Your task to perform on an android device: Open network settings Image 0: 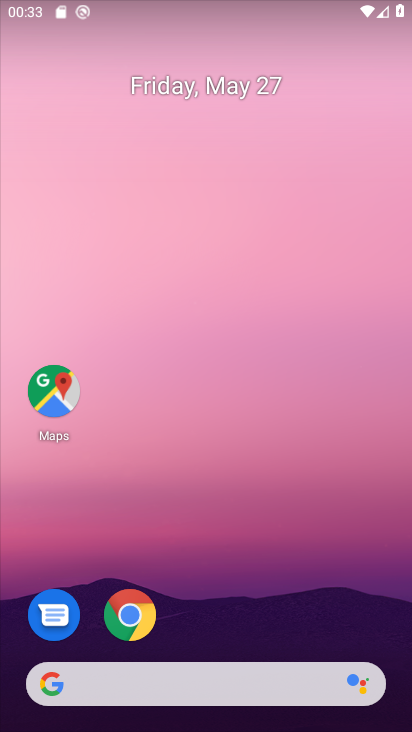
Step 0: drag from (348, 624) to (371, 133)
Your task to perform on an android device: Open network settings Image 1: 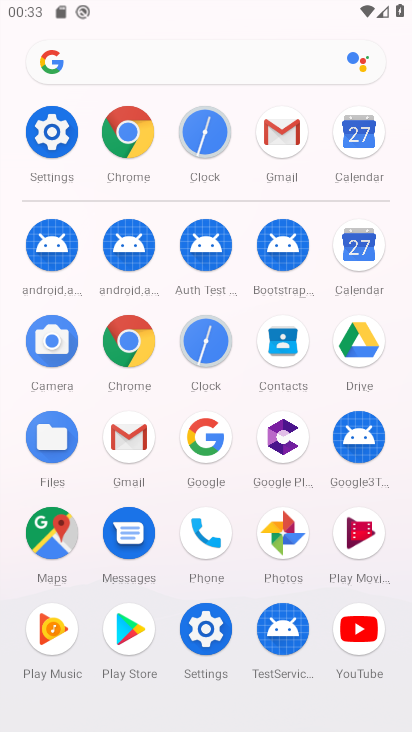
Step 1: click (57, 137)
Your task to perform on an android device: Open network settings Image 2: 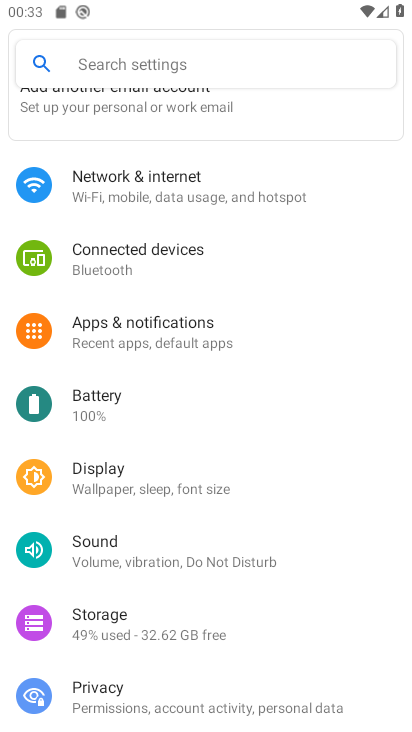
Step 2: click (140, 190)
Your task to perform on an android device: Open network settings Image 3: 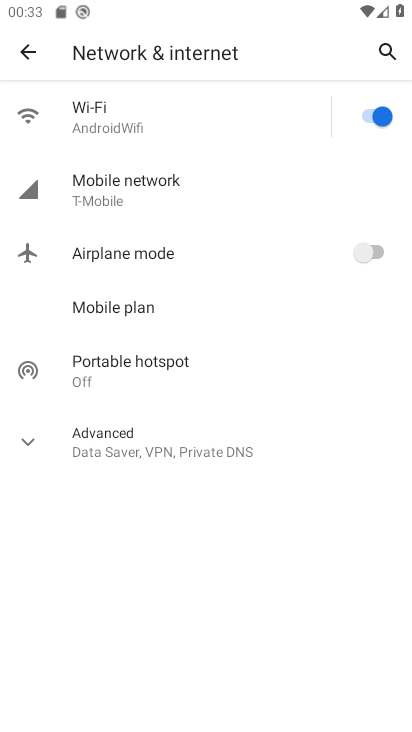
Step 3: task complete